Your task to perform on an android device: Go to CNN.com Image 0: 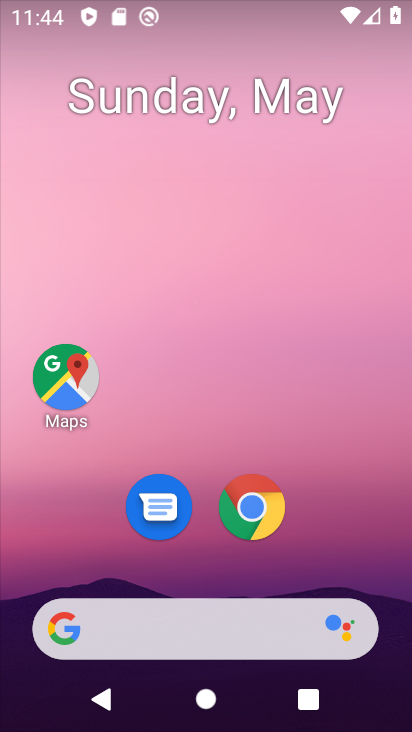
Step 0: click (251, 506)
Your task to perform on an android device: Go to CNN.com Image 1: 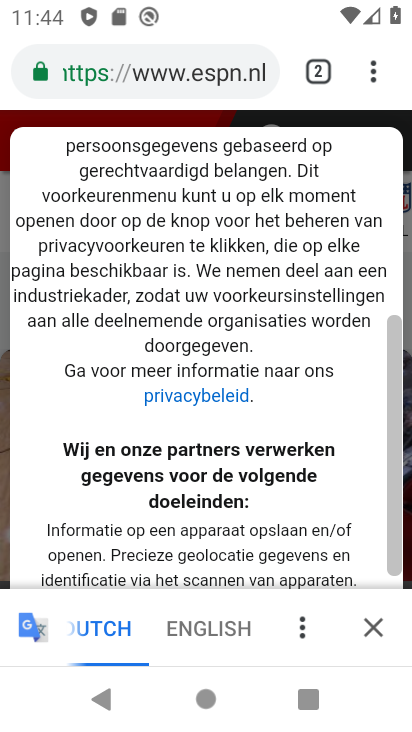
Step 1: click (372, 79)
Your task to perform on an android device: Go to CNN.com Image 2: 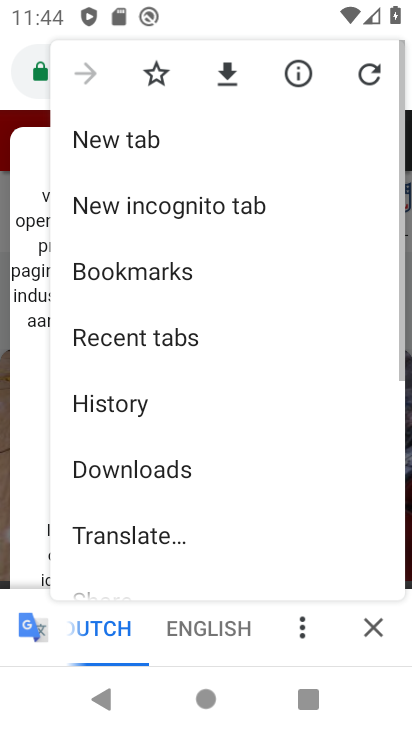
Step 2: click (131, 139)
Your task to perform on an android device: Go to CNN.com Image 3: 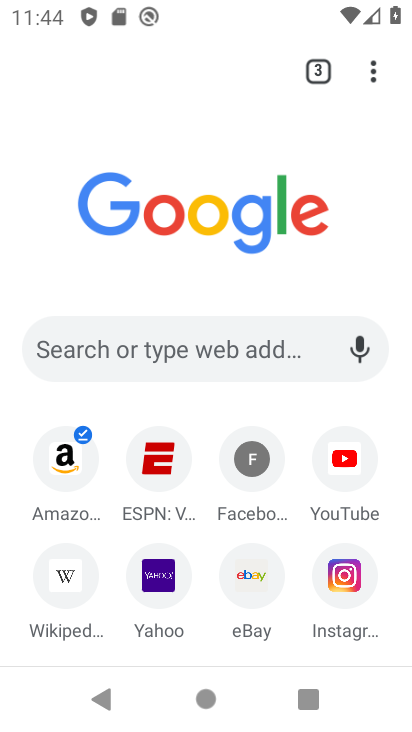
Step 3: click (242, 339)
Your task to perform on an android device: Go to CNN.com Image 4: 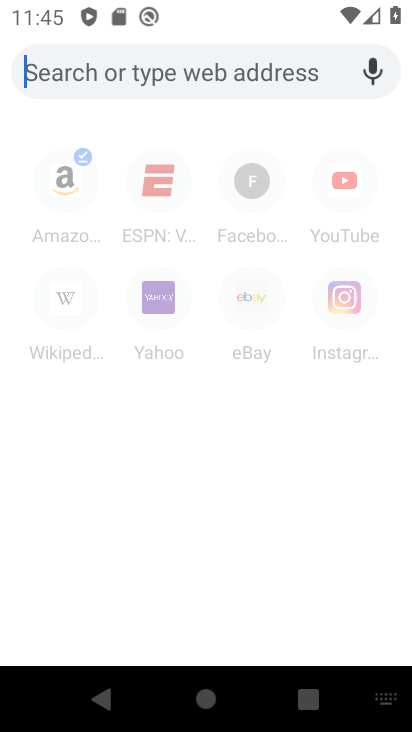
Step 4: type "CNN.com"
Your task to perform on an android device: Go to CNN.com Image 5: 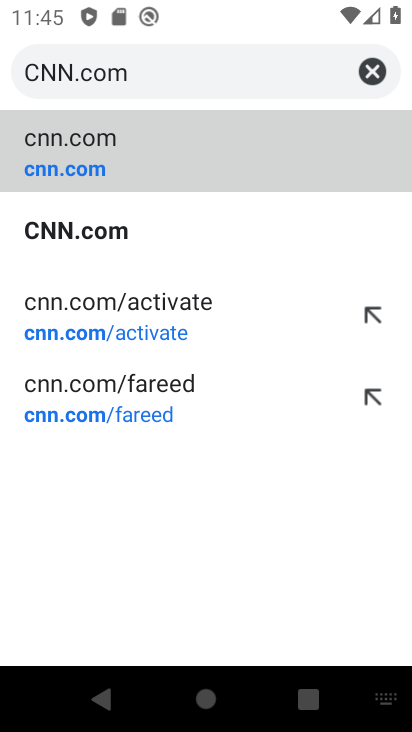
Step 5: click (94, 147)
Your task to perform on an android device: Go to CNN.com Image 6: 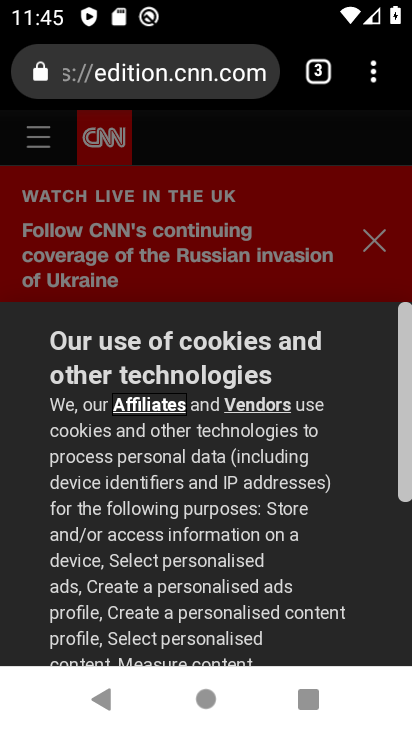
Step 6: task complete